Your task to perform on an android device: Open privacy settings Image 0: 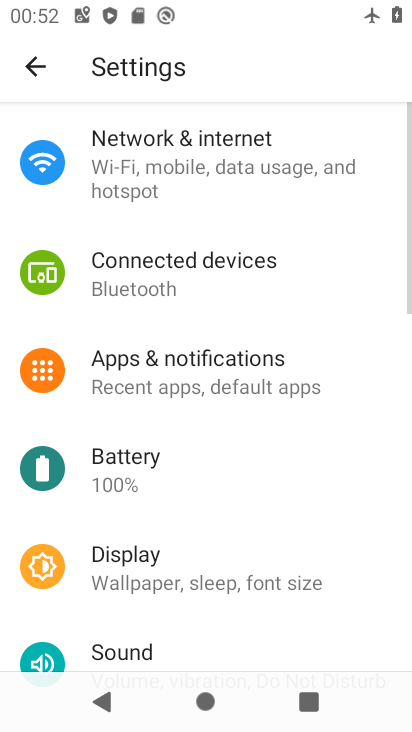
Step 0: drag from (278, 523) to (246, 118)
Your task to perform on an android device: Open privacy settings Image 1: 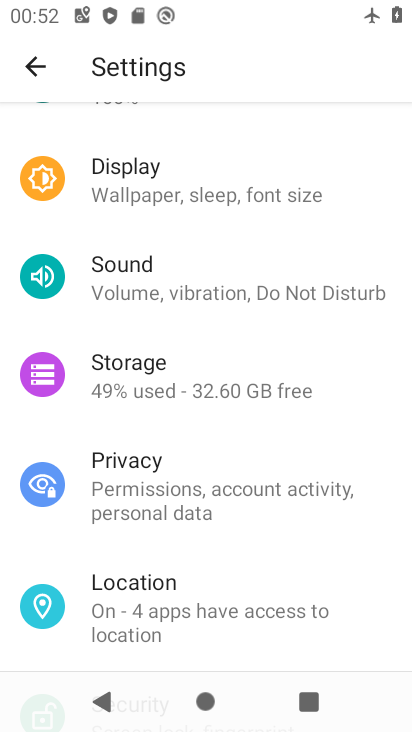
Step 1: click (233, 475)
Your task to perform on an android device: Open privacy settings Image 2: 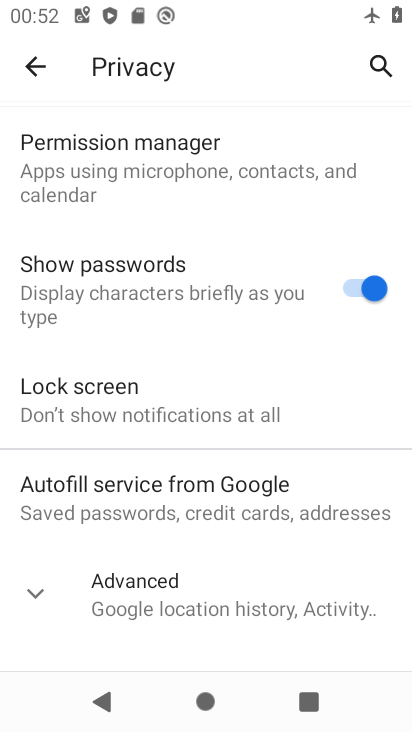
Step 2: task complete